Your task to perform on an android device: Open Google Image 0: 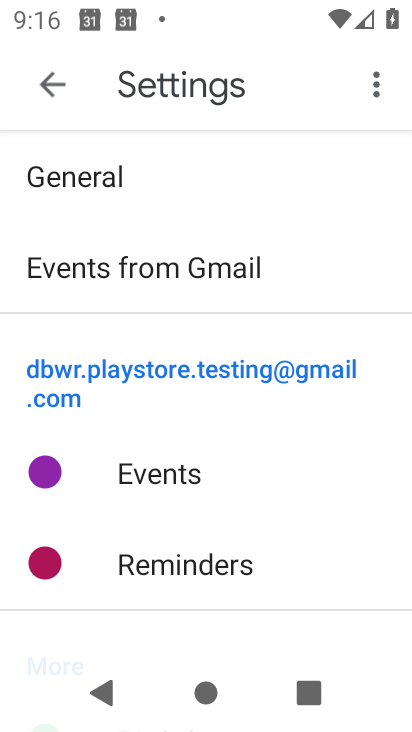
Step 0: press home button
Your task to perform on an android device: Open Google Image 1: 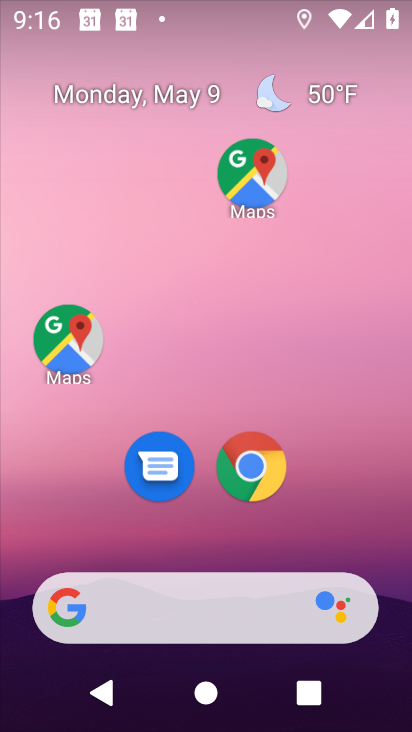
Step 1: drag from (209, 547) to (153, 162)
Your task to perform on an android device: Open Google Image 2: 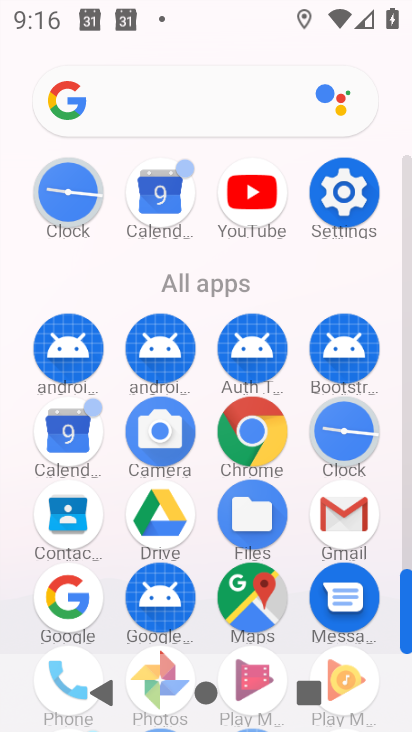
Step 2: click (78, 600)
Your task to perform on an android device: Open Google Image 3: 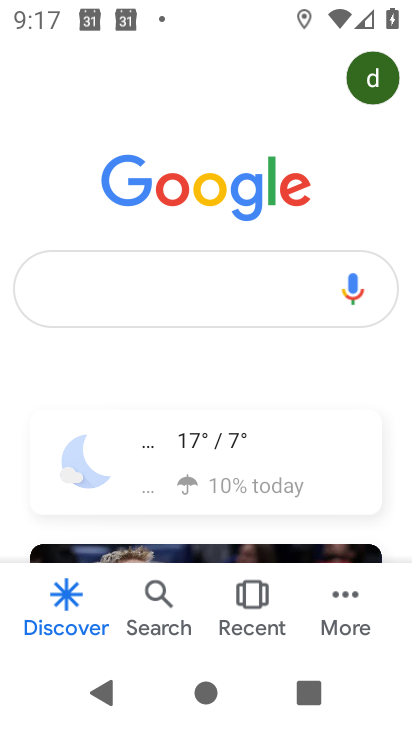
Step 3: task complete